Your task to perform on an android device: open wifi settings Image 0: 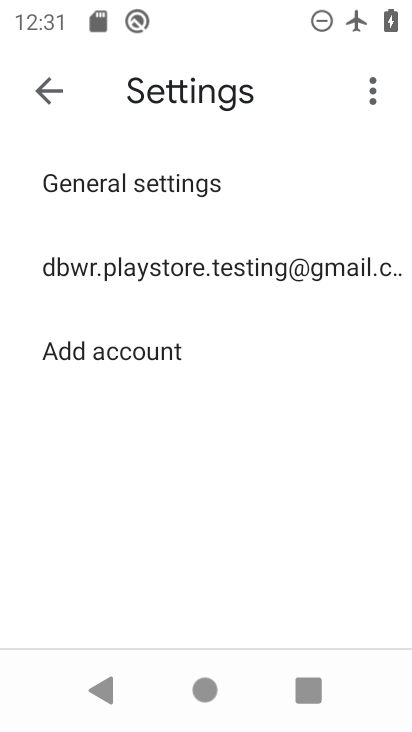
Step 0: press back button
Your task to perform on an android device: open wifi settings Image 1: 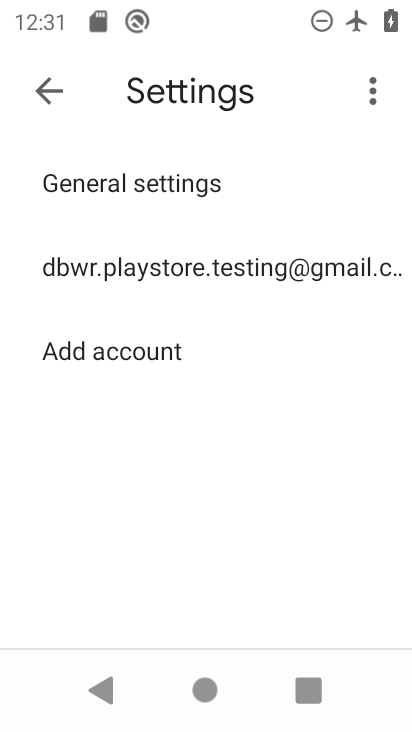
Step 1: click (53, 91)
Your task to perform on an android device: open wifi settings Image 2: 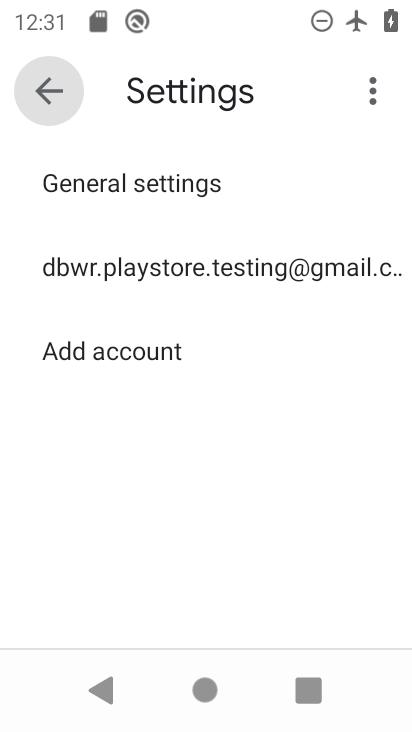
Step 2: click (53, 91)
Your task to perform on an android device: open wifi settings Image 3: 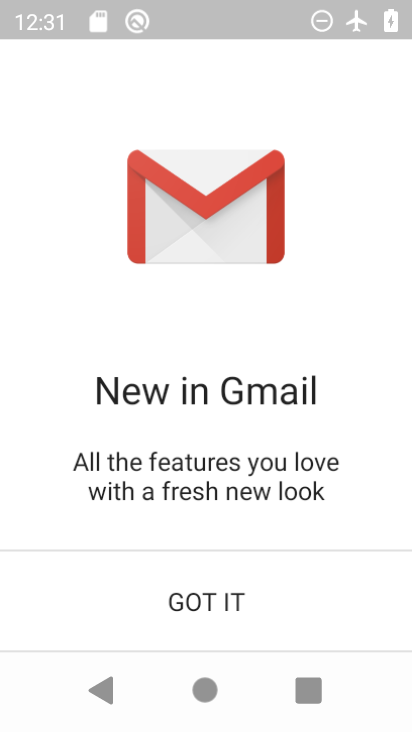
Step 3: click (53, 91)
Your task to perform on an android device: open wifi settings Image 4: 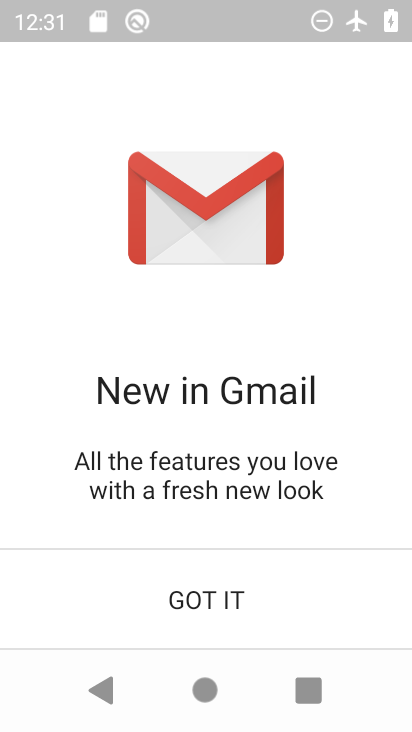
Step 4: click (230, 588)
Your task to perform on an android device: open wifi settings Image 5: 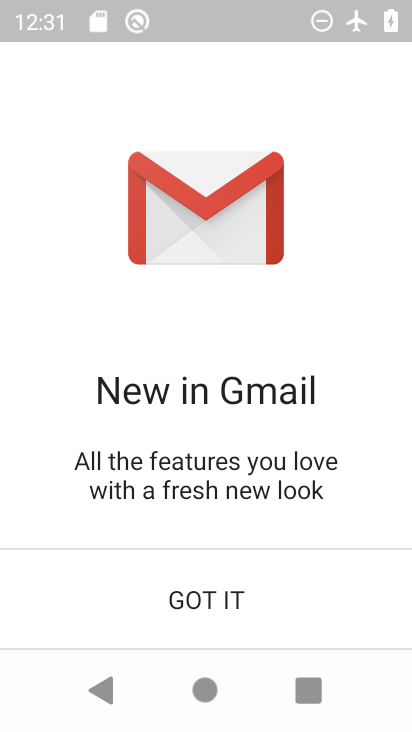
Step 5: click (223, 594)
Your task to perform on an android device: open wifi settings Image 6: 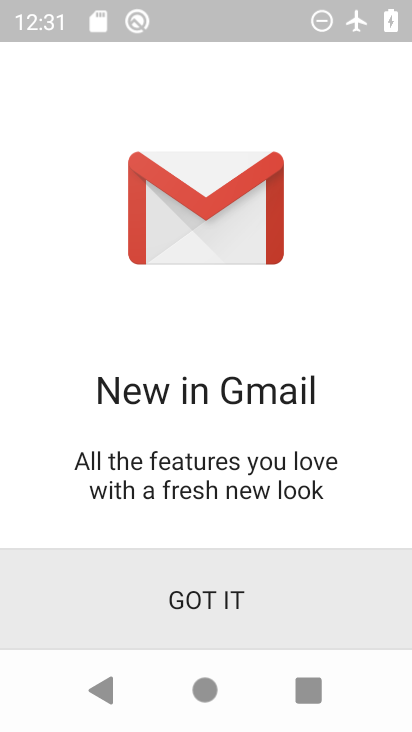
Step 6: click (223, 595)
Your task to perform on an android device: open wifi settings Image 7: 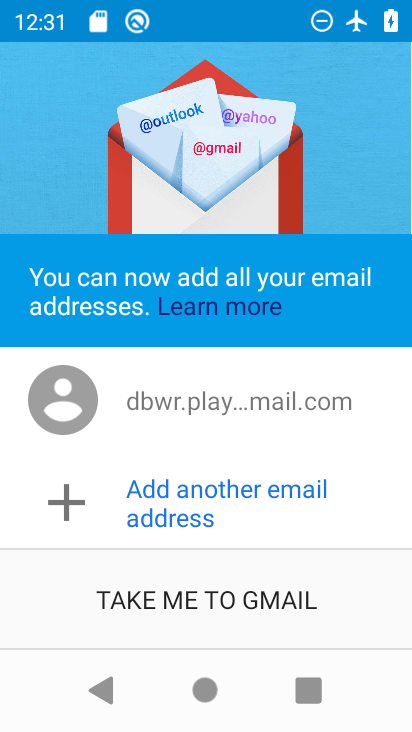
Step 7: press back button
Your task to perform on an android device: open wifi settings Image 8: 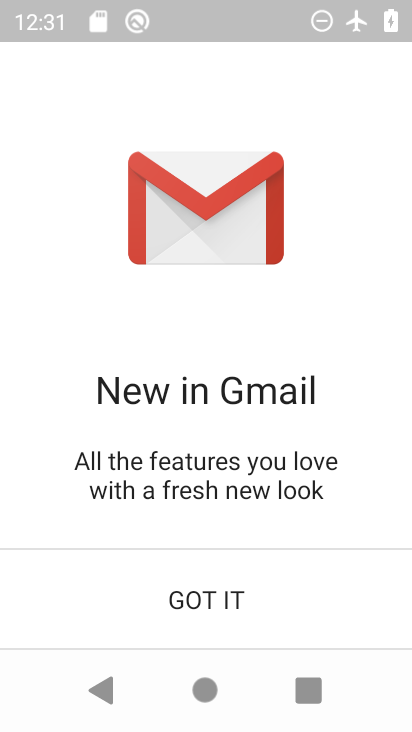
Step 8: press home button
Your task to perform on an android device: open wifi settings Image 9: 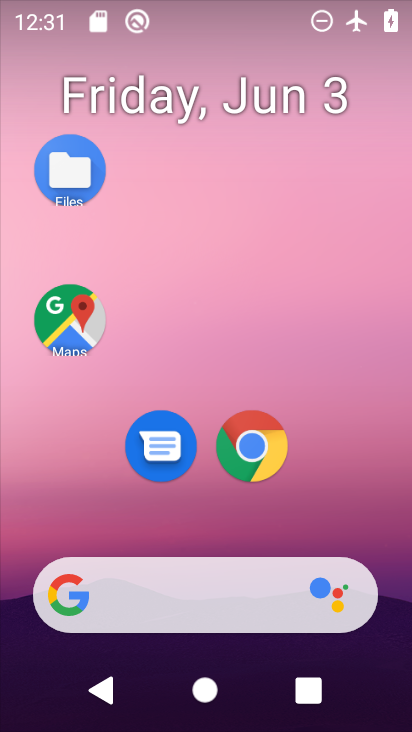
Step 9: drag from (267, 615) to (263, 125)
Your task to perform on an android device: open wifi settings Image 10: 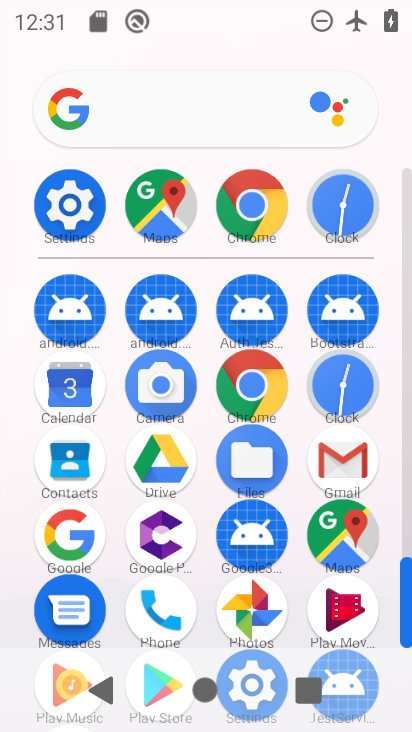
Step 10: click (63, 202)
Your task to perform on an android device: open wifi settings Image 11: 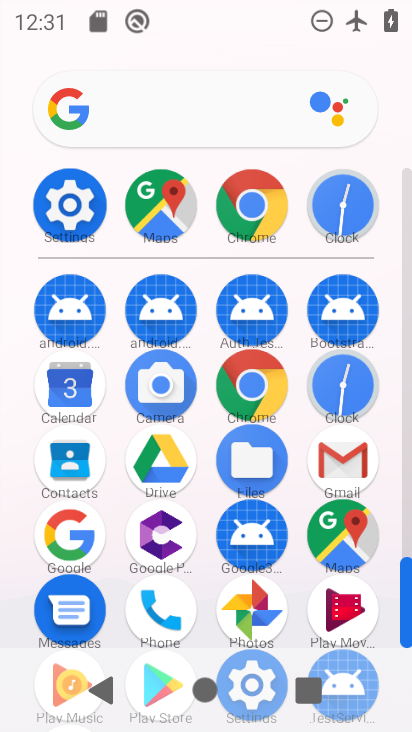
Step 11: click (61, 202)
Your task to perform on an android device: open wifi settings Image 12: 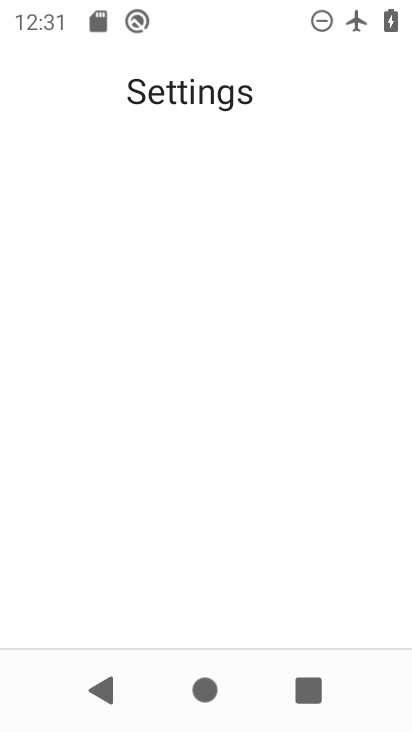
Step 12: click (61, 202)
Your task to perform on an android device: open wifi settings Image 13: 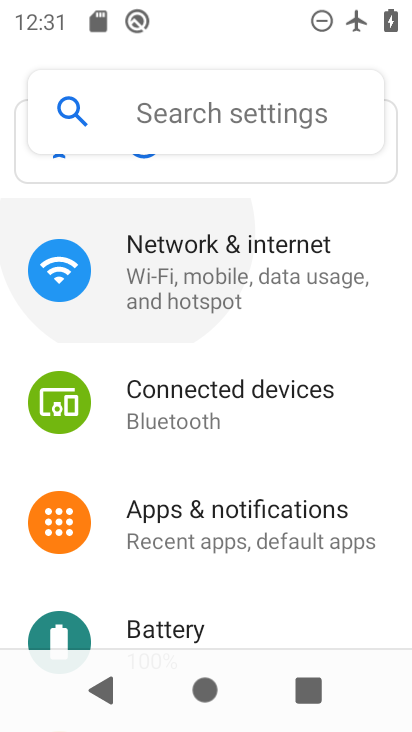
Step 13: click (61, 202)
Your task to perform on an android device: open wifi settings Image 14: 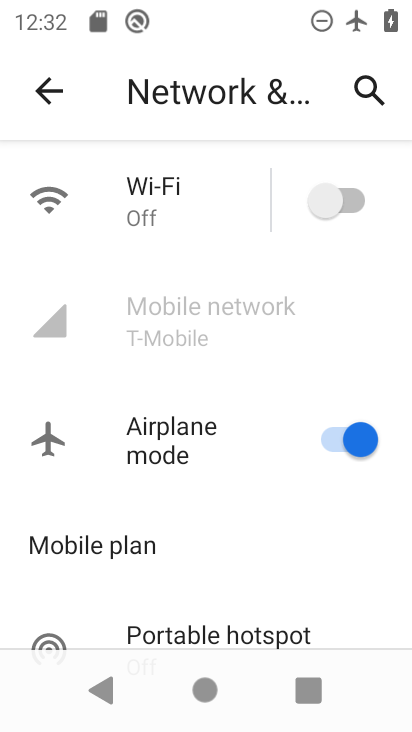
Step 14: click (331, 204)
Your task to perform on an android device: open wifi settings Image 15: 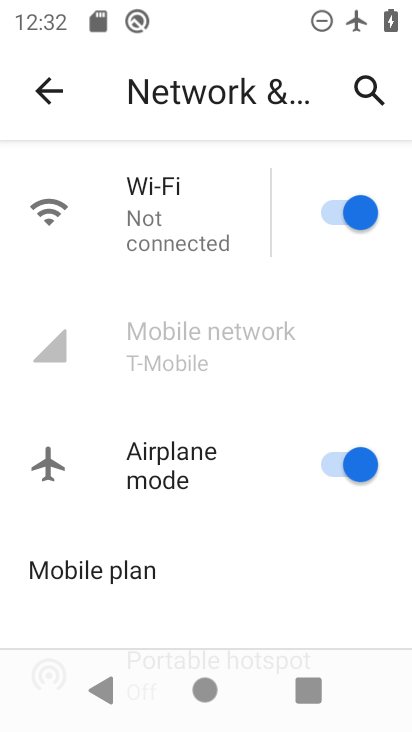
Step 15: task complete